Your task to perform on an android device: Open Wikipedia Image 0: 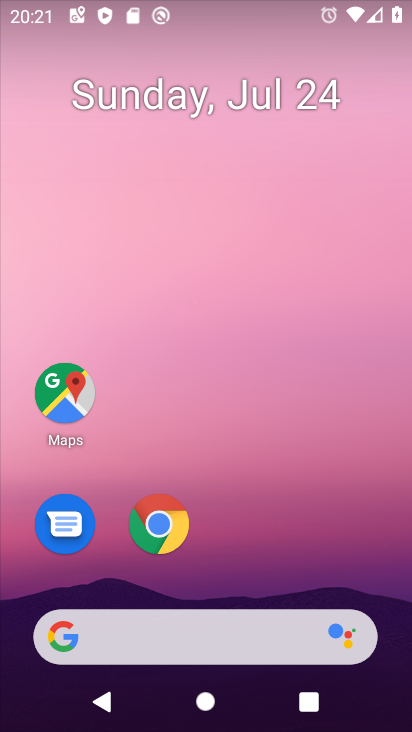
Step 0: click (170, 528)
Your task to perform on an android device: Open Wikipedia Image 1: 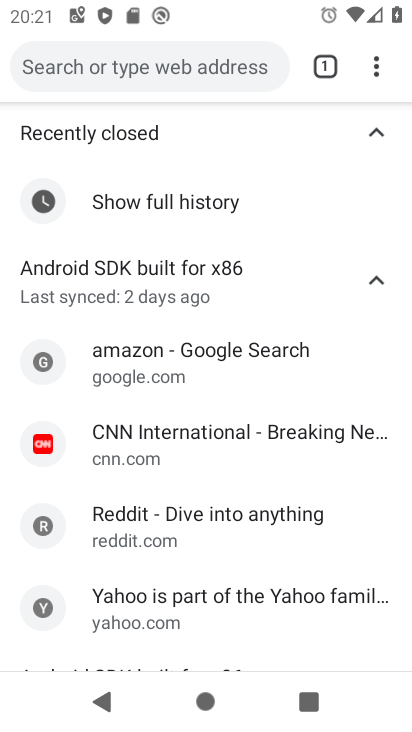
Step 1: press back button
Your task to perform on an android device: Open Wikipedia Image 2: 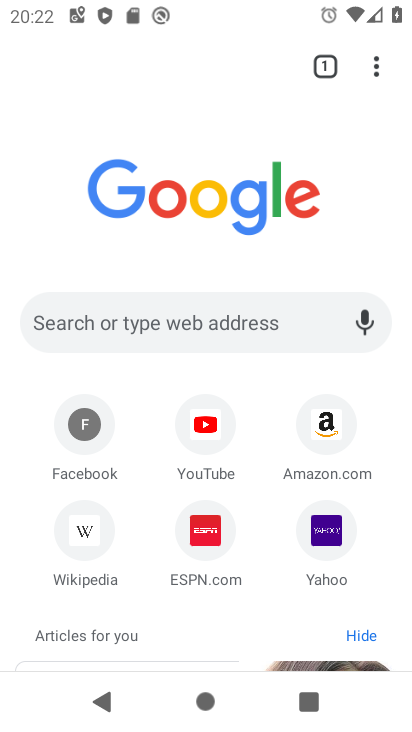
Step 2: click (91, 529)
Your task to perform on an android device: Open Wikipedia Image 3: 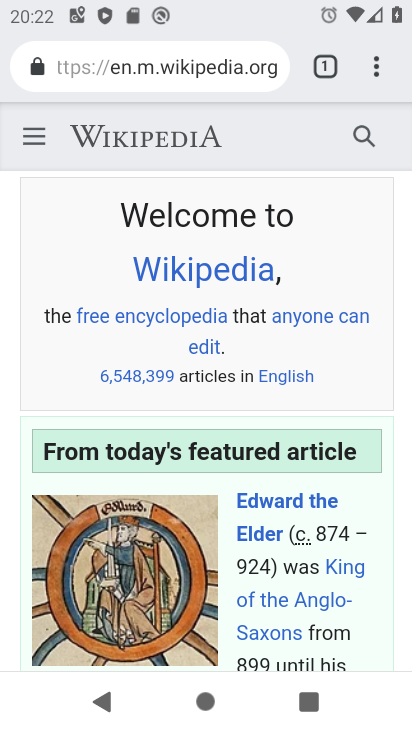
Step 3: task complete